Your task to perform on an android device: toggle wifi Image 0: 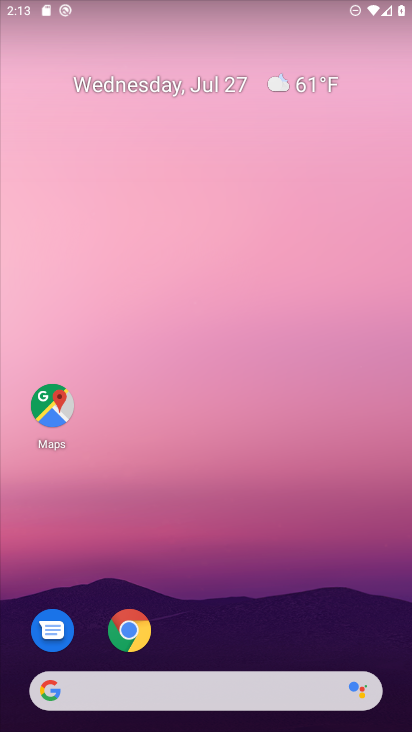
Step 0: drag from (263, 610) to (256, 131)
Your task to perform on an android device: toggle wifi Image 1: 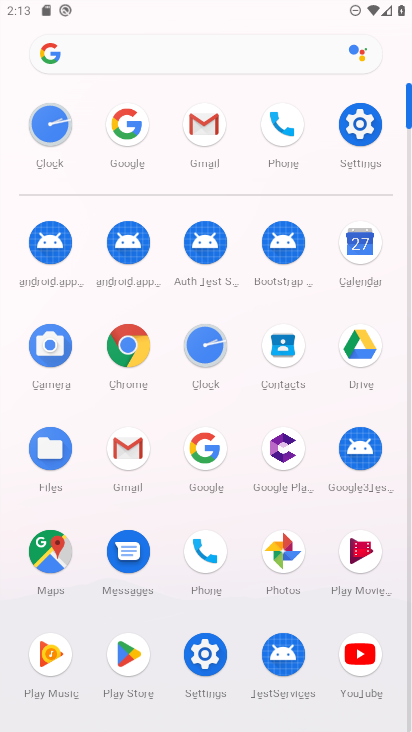
Step 1: click (377, 119)
Your task to perform on an android device: toggle wifi Image 2: 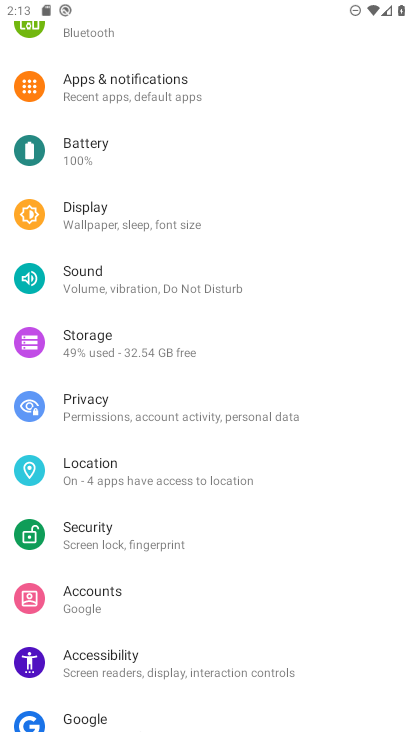
Step 2: drag from (209, 216) to (225, 675)
Your task to perform on an android device: toggle wifi Image 3: 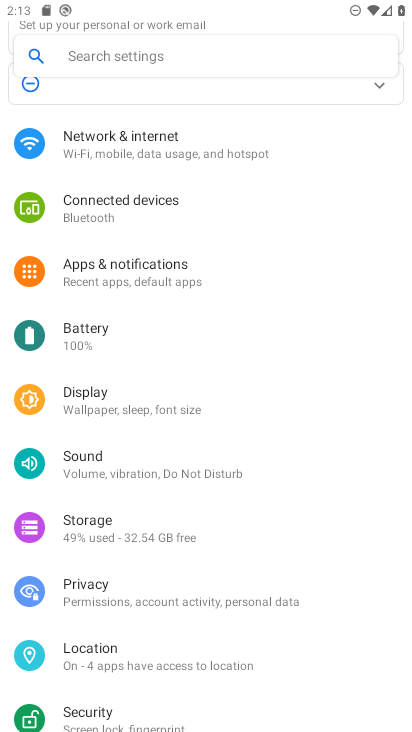
Step 3: click (239, 151)
Your task to perform on an android device: toggle wifi Image 4: 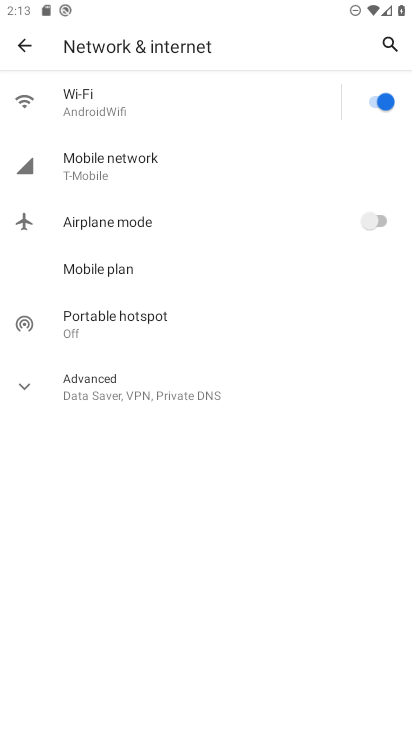
Step 4: click (382, 99)
Your task to perform on an android device: toggle wifi Image 5: 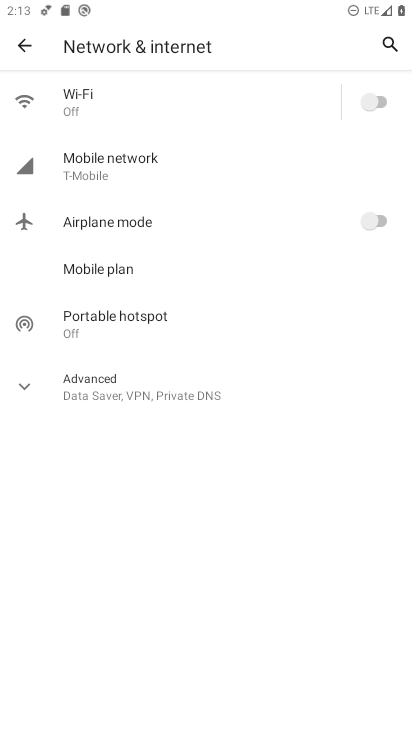
Step 5: task complete